Your task to perform on an android device: Open maps Image 0: 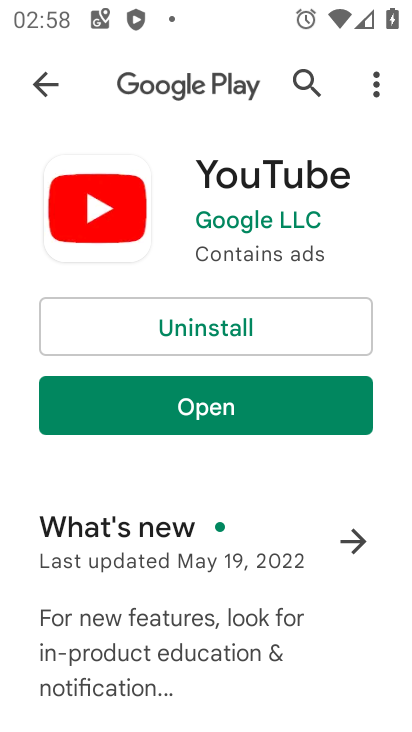
Step 0: press home button
Your task to perform on an android device: Open maps Image 1: 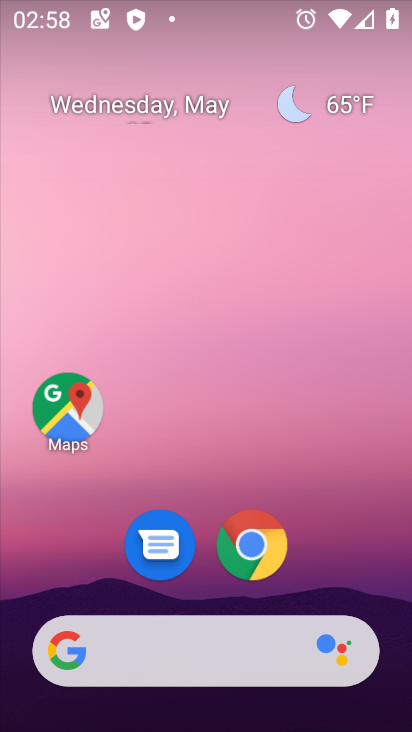
Step 1: click (78, 412)
Your task to perform on an android device: Open maps Image 2: 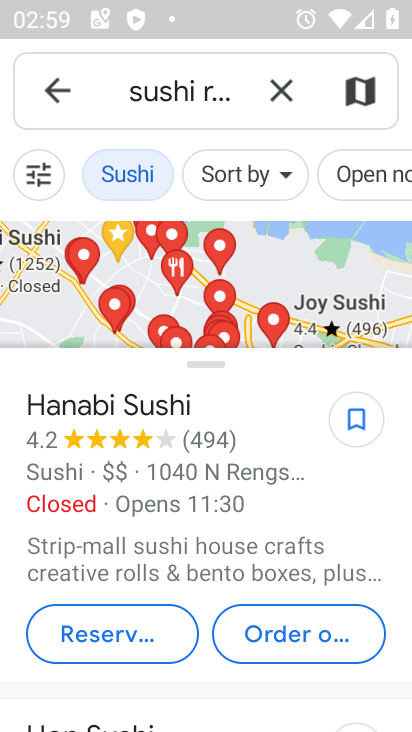
Step 2: task complete